Your task to perform on an android device: check the backup settings in the google photos Image 0: 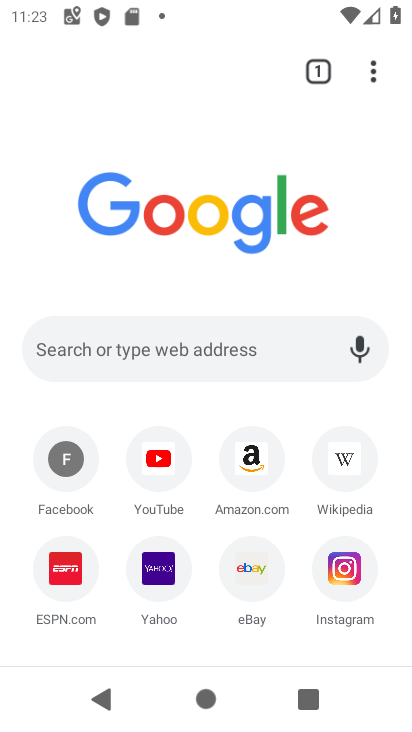
Step 0: press home button
Your task to perform on an android device: check the backup settings in the google photos Image 1: 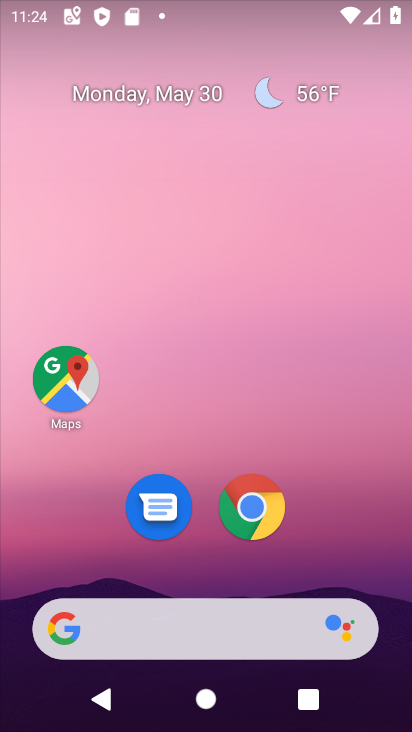
Step 1: drag from (374, 554) to (398, 60)
Your task to perform on an android device: check the backup settings in the google photos Image 2: 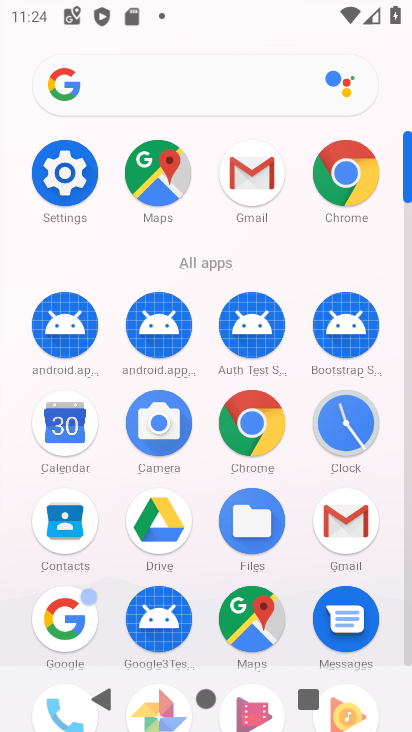
Step 2: drag from (108, 557) to (102, 370)
Your task to perform on an android device: check the backup settings in the google photos Image 3: 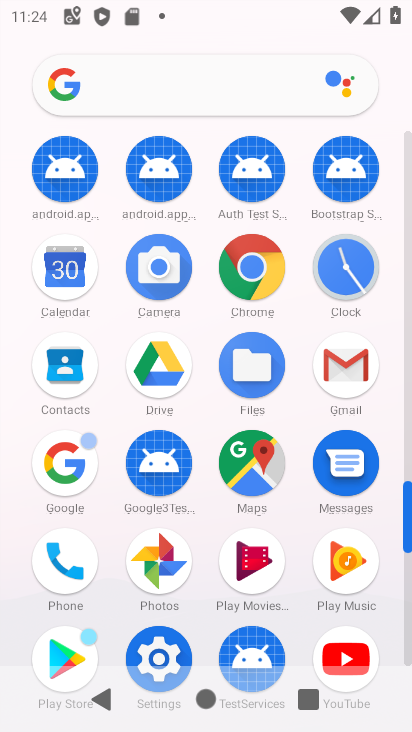
Step 3: click (165, 555)
Your task to perform on an android device: check the backup settings in the google photos Image 4: 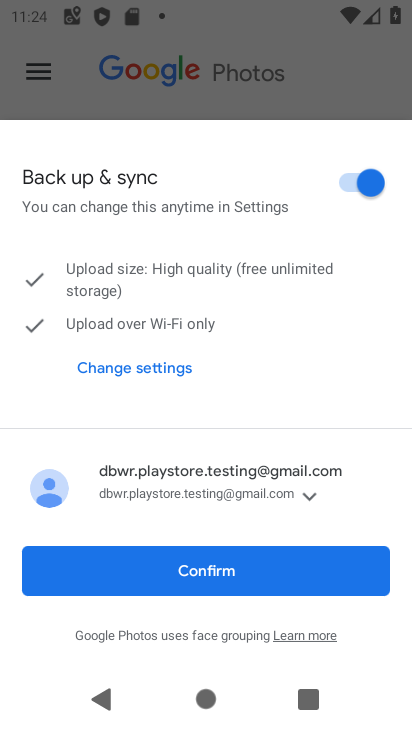
Step 4: click (45, 75)
Your task to perform on an android device: check the backup settings in the google photos Image 5: 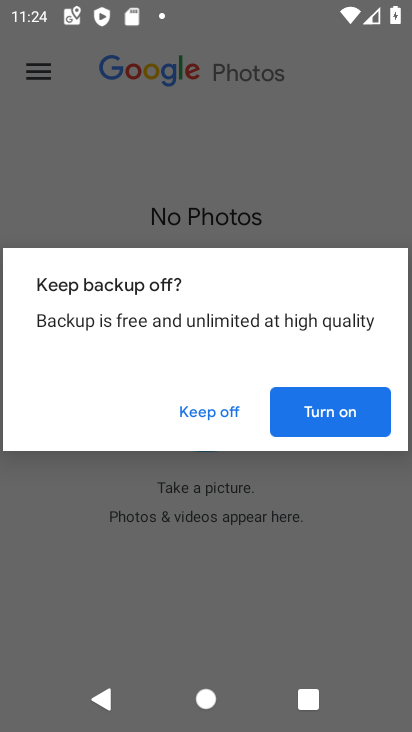
Step 5: click (40, 68)
Your task to perform on an android device: check the backup settings in the google photos Image 6: 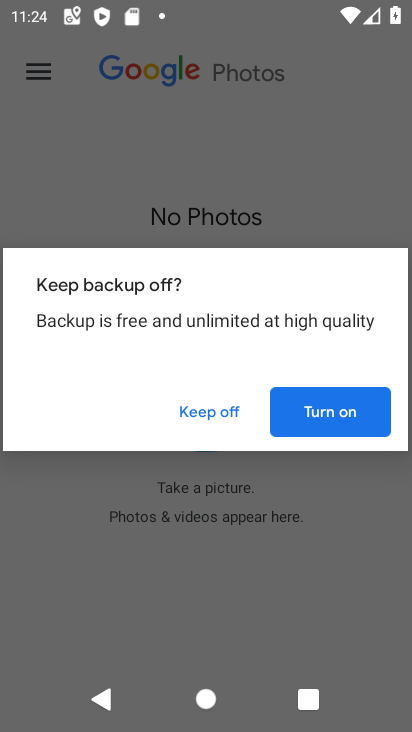
Step 6: click (279, 395)
Your task to perform on an android device: check the backup settings in the google photos Image 7: 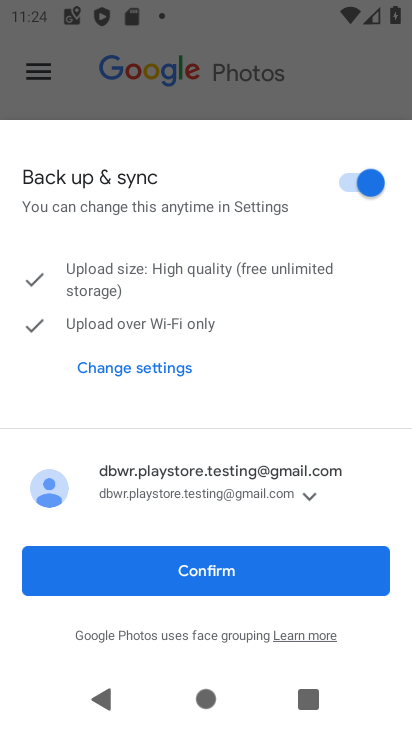
Step 7: task complete